Your task to perform on an android device: Set the phone to "Do not disturb". Image 0: 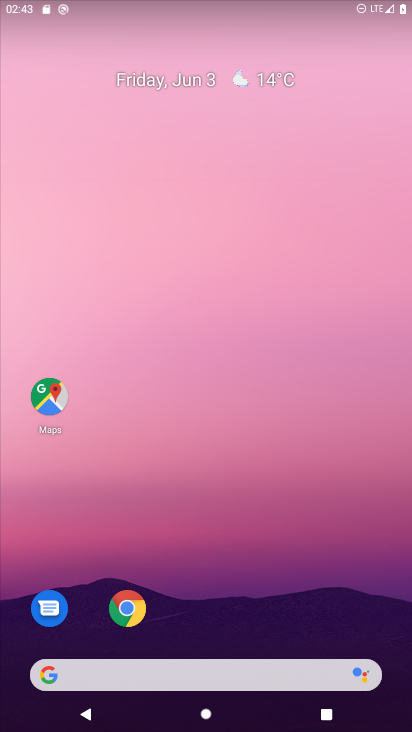
Step 0: drag from (249, 40) to (266, 542)
Your task to perform on an android device: Set the phone to "Do not disturb". Image 1: 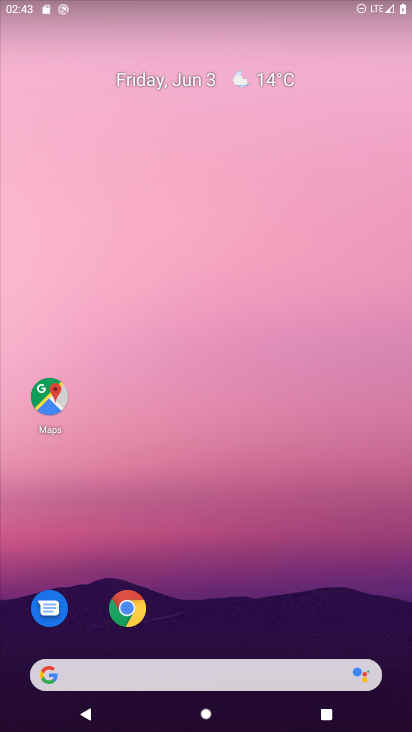
Step 1: task complete